Your task to perform on an android device: Do I have any events today? Image 0: 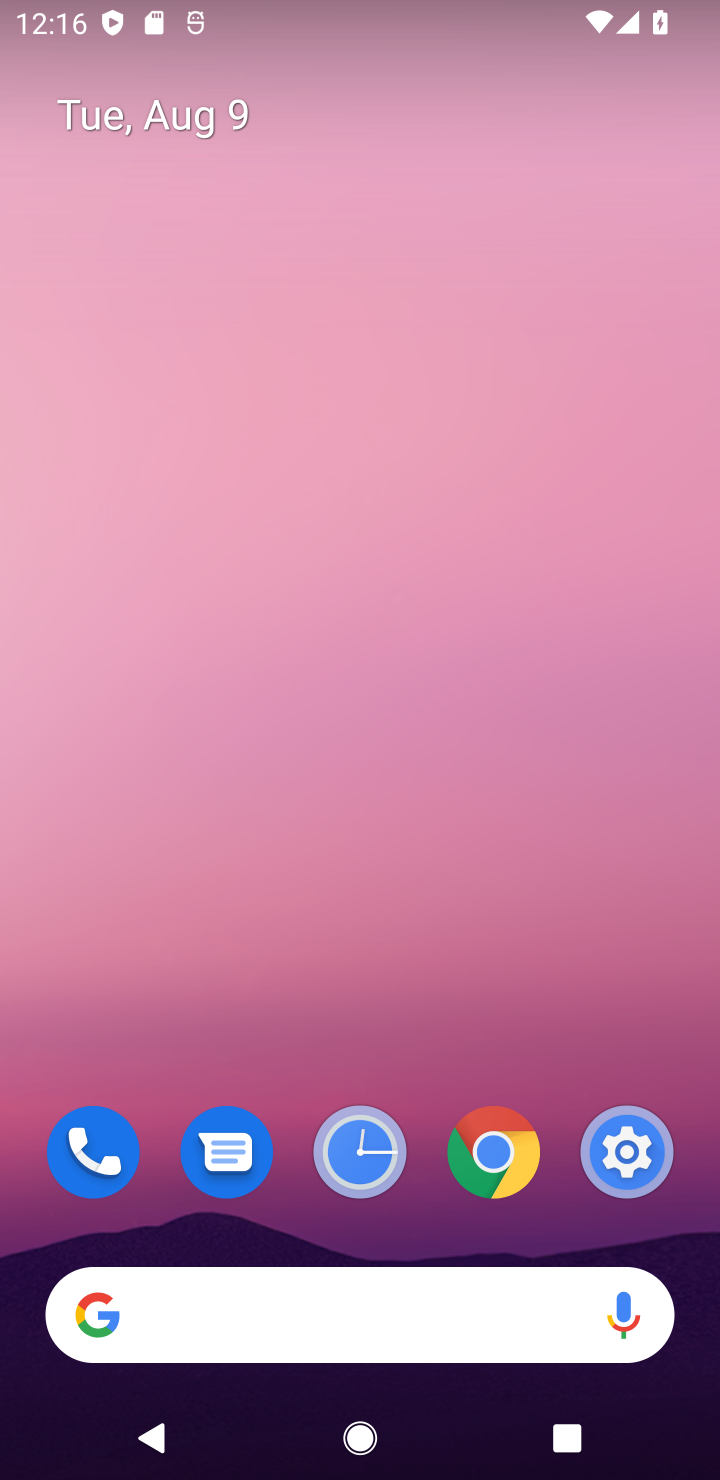
Step 0: drag from (415, 1099) to (358, 673)
Your task to perform on an android device: Do I have any events today? Image 1: 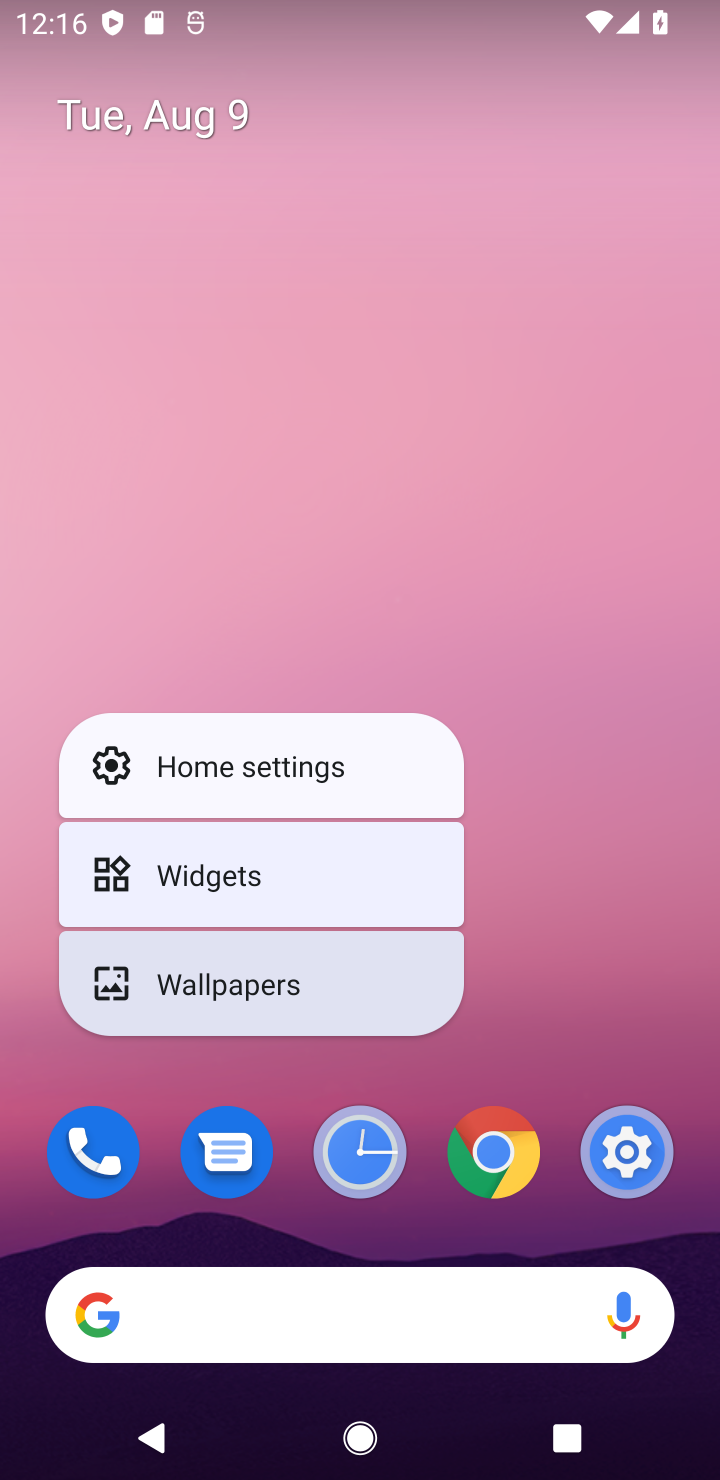
Step 1: click (567, 696)
Your task to perform on an android device: Do I have any events today? Image 2: 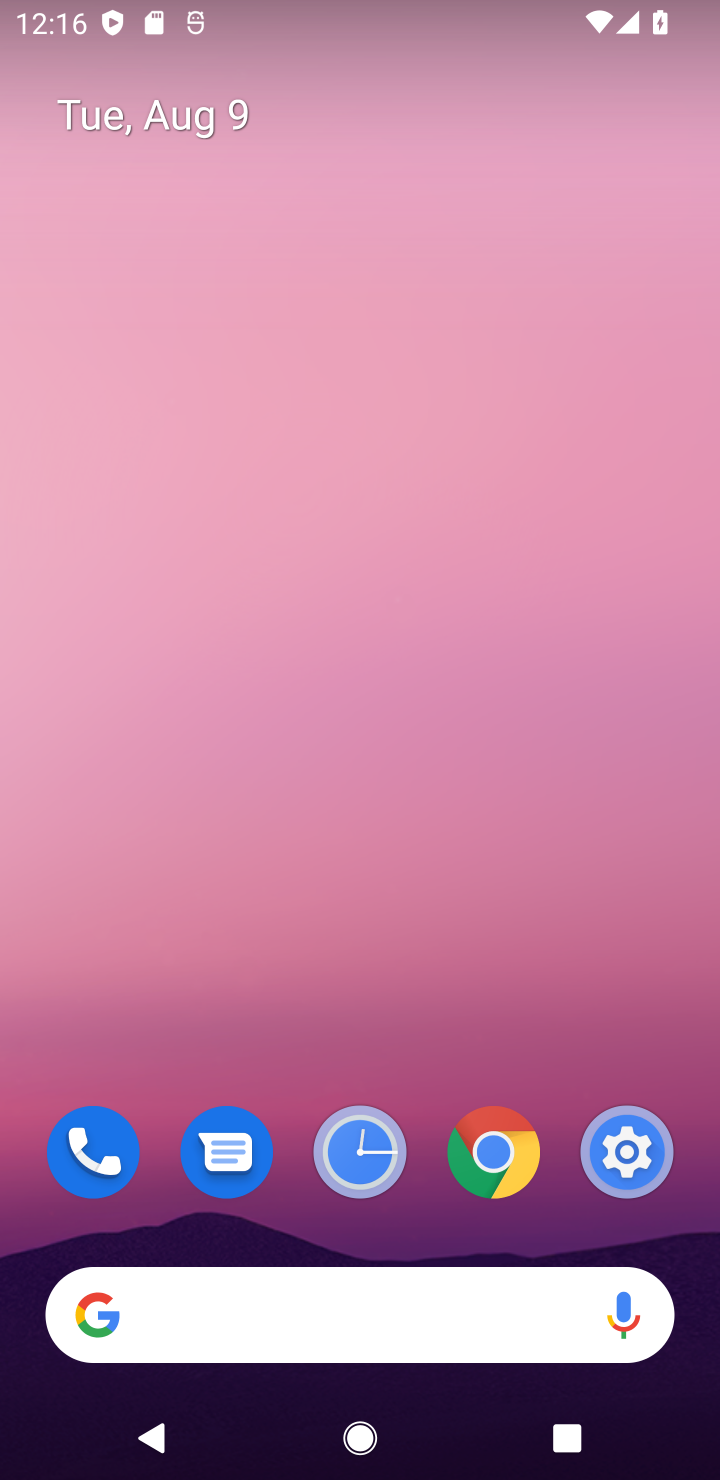
Step 2: drag from (441, 1058) to (410, 292)
Your task to perform on an android device: Do I have any events today? Image 3: 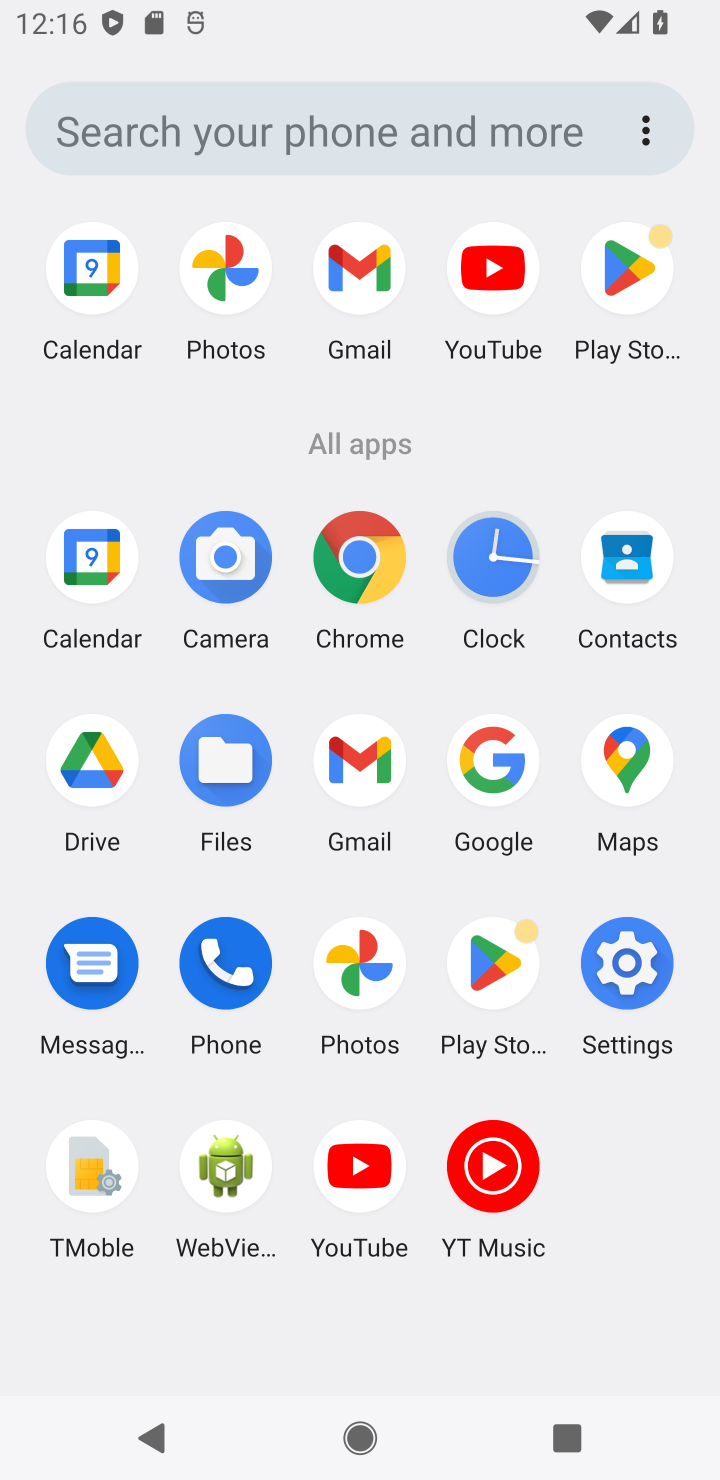
Step 3: click (74, 304)
Your task to perform on an android device: Do I have any events today? Image 4: 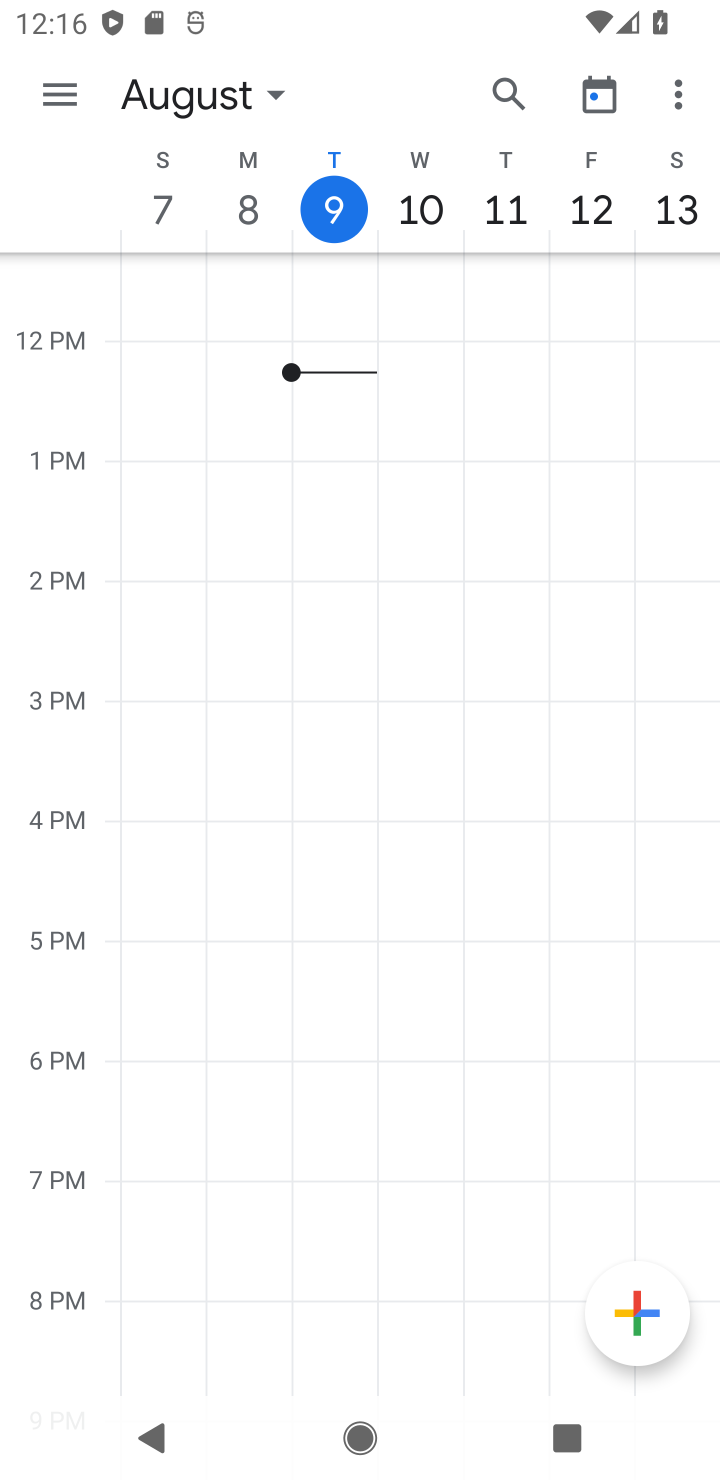
Step 4: click (67, 86)
Your task to perform on an android device: Do I have any events today? Image 5: 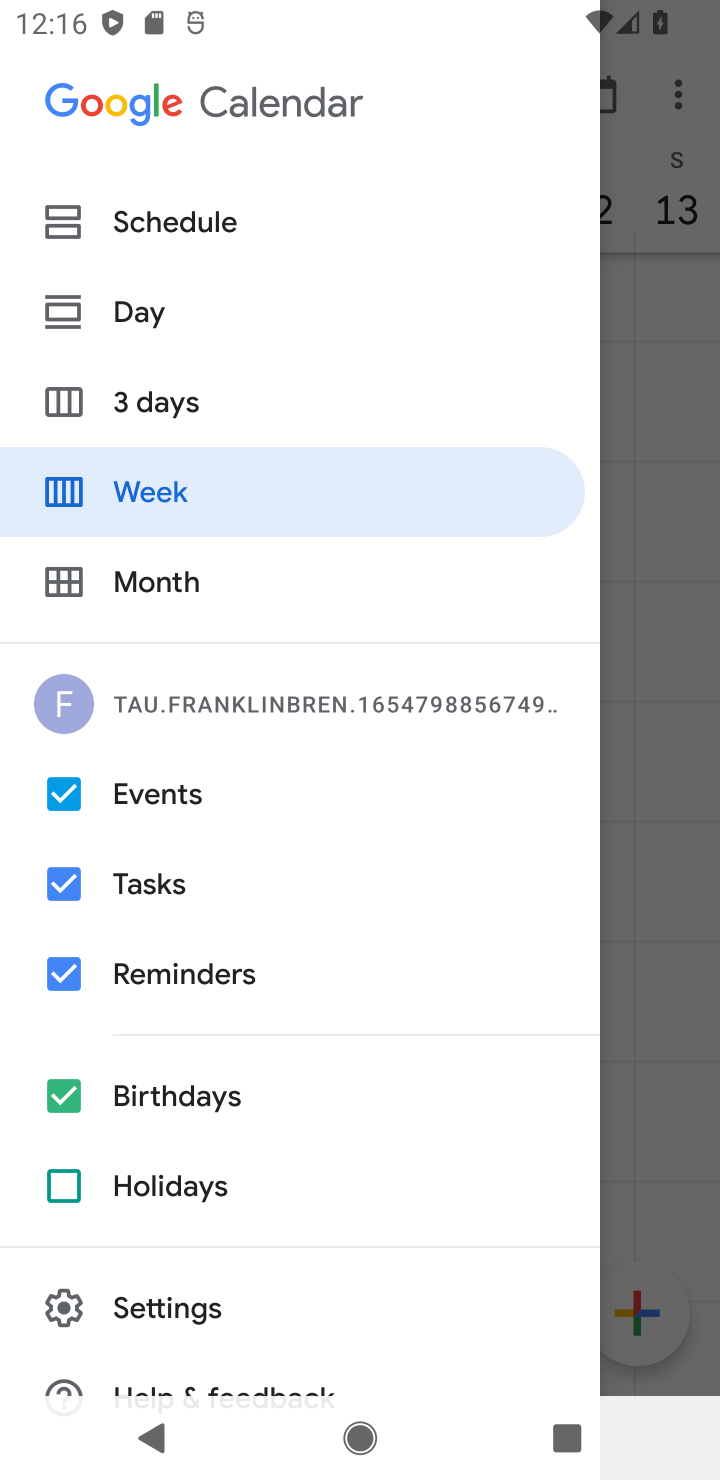
Step 5: click (126, 328)
Your task to perform on an android device: Do I have any events today? Image 6: 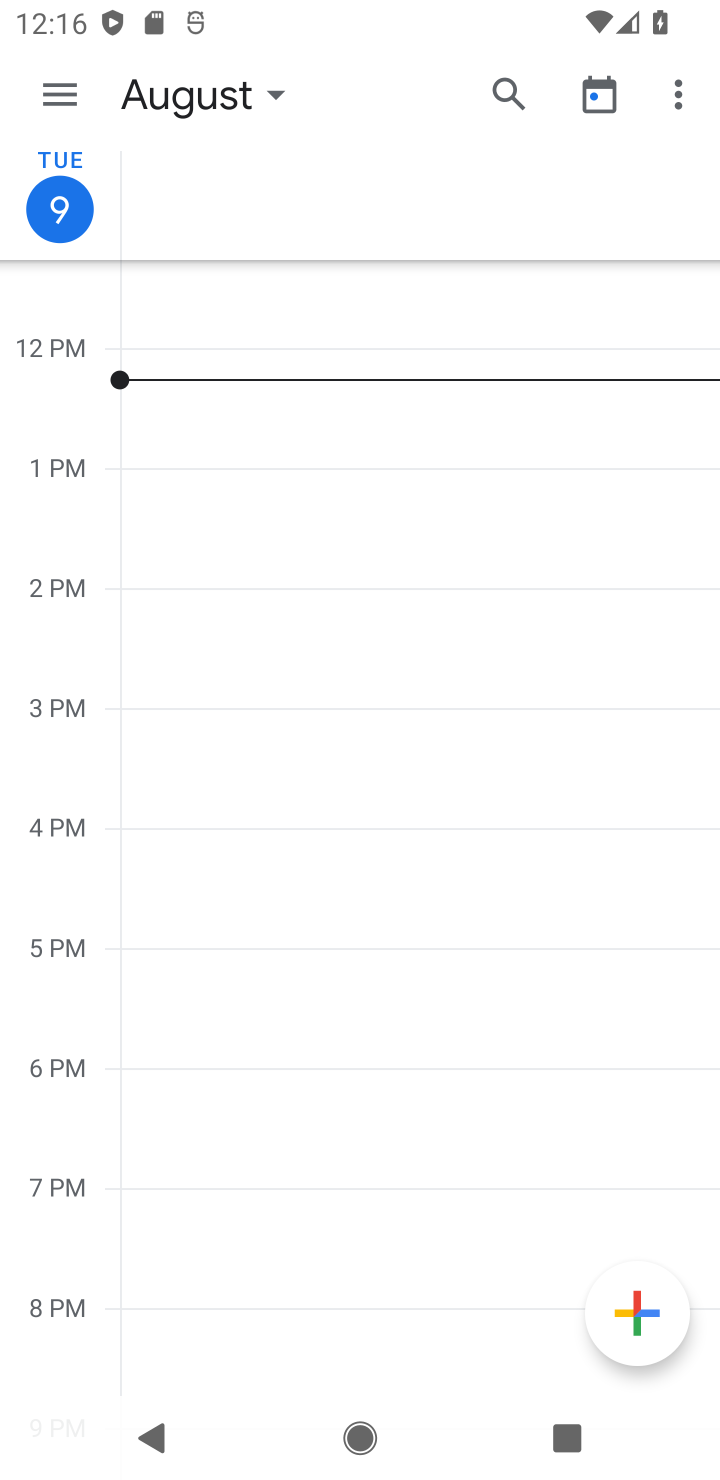
Step 6: task complete